Your task to perform on an android device: toggle data saver in the chrome app Image 0: 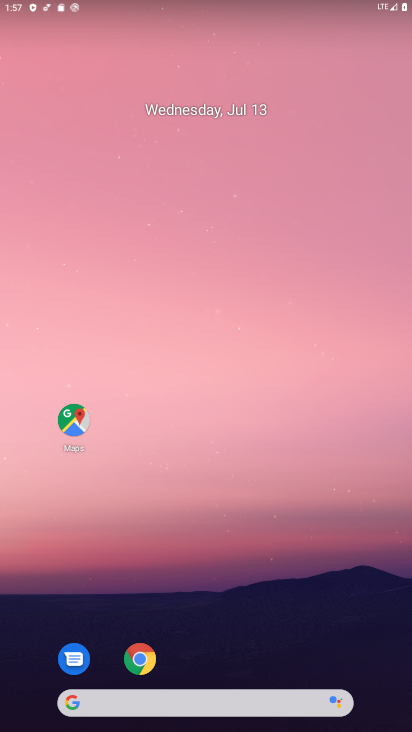
Step 0: click (137, 660)
Your task to perform on an android device: toggle data saver in the chrome app Image 1: 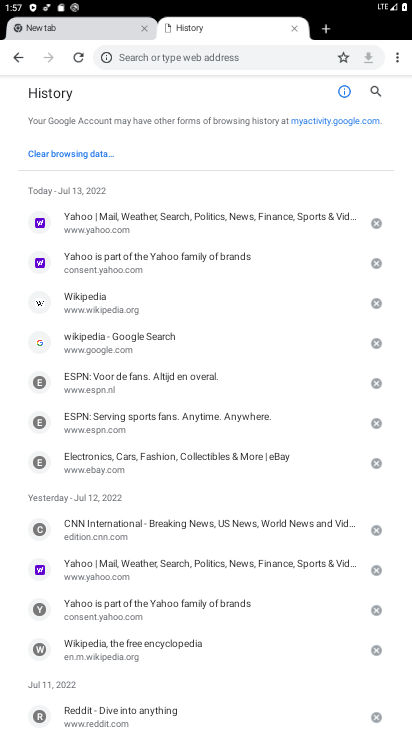
Step 1: click (395, 58)
Your task to perform on an android device: toggle data saver in the chrome app Image 2: 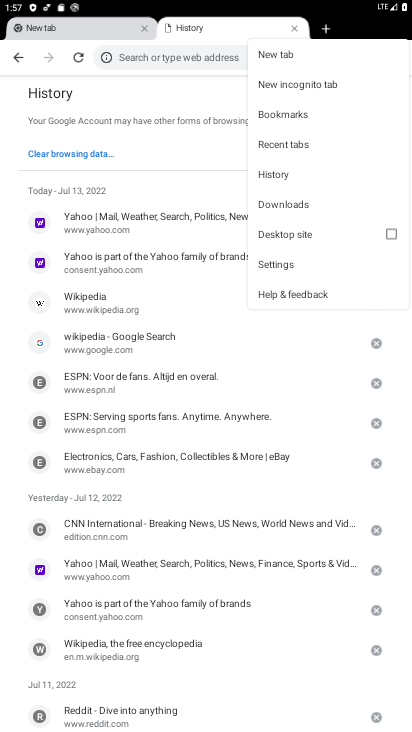
Step 2: click (268, 264)
Your task to perform on an android device: toggle data saver in the chrome app Image 3: 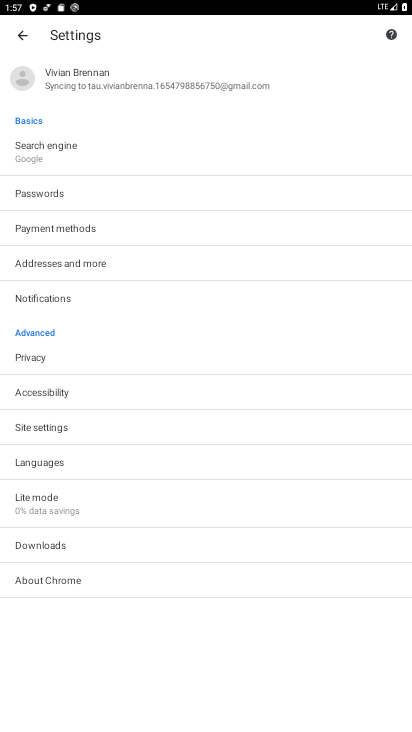
Step 3: click (27, 498)
Your task to perform on an android device: toggle data saver in the chrome app Image 4: 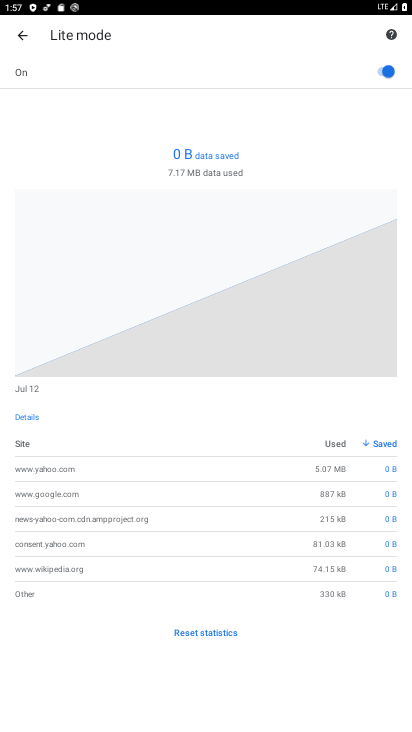
Step 4: click (378, 69)
Your task to perform on an android device: toggle data saver in the chrome app Image 5: 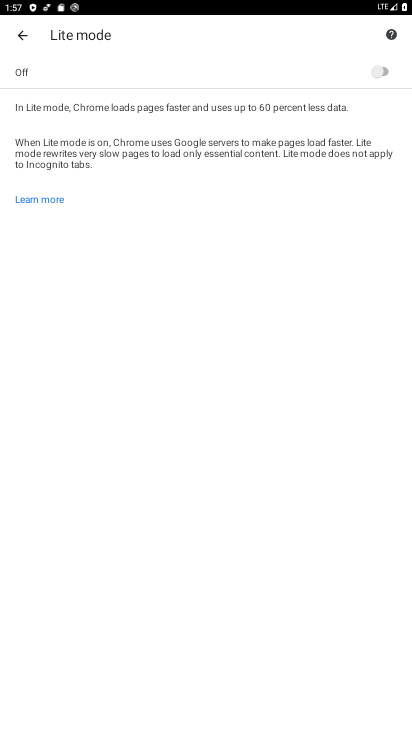
Step 5: task complete